Your task to perform on an android device: uninstall "PUBG MOBILE" Image 0: 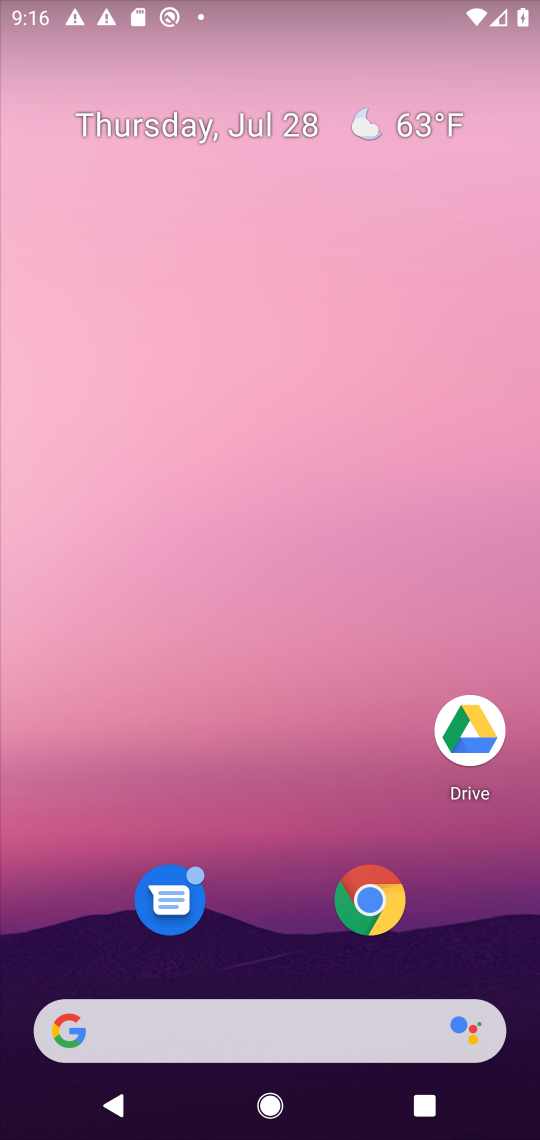
Step 0: drag from (241, 769) to (371, 491)
Your task to perform on an android device: uninstall "PUBG MOBILE" Image 1: 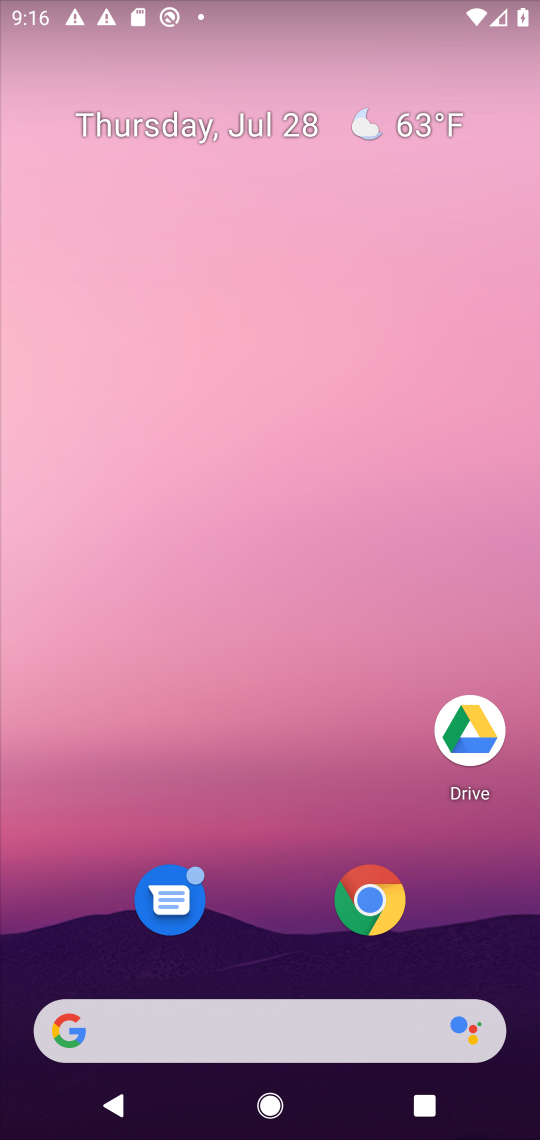
Step 1: task complete